Your task to perform on an android device: make emails show in primary in the gmail app Image 0: 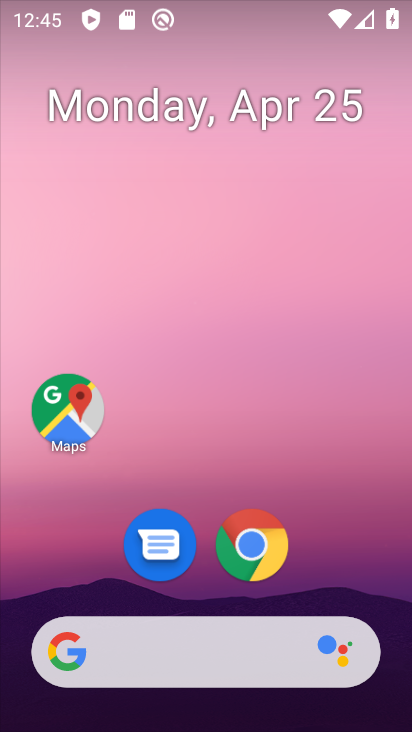
Step 0: drag from (292, 445) to (134, 110)
Your task to perform on an android device: make emails show in primary in the gmail app Image 1: 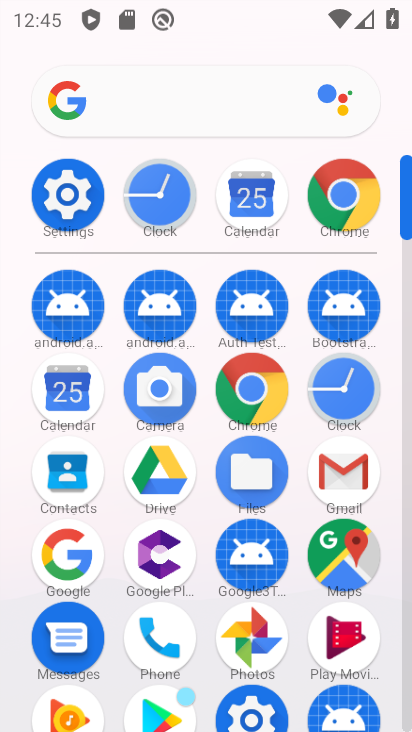
Step 1: click (356, 472)
Your task to perform on an android device: make emails show in primary in the gmail app Image 2: 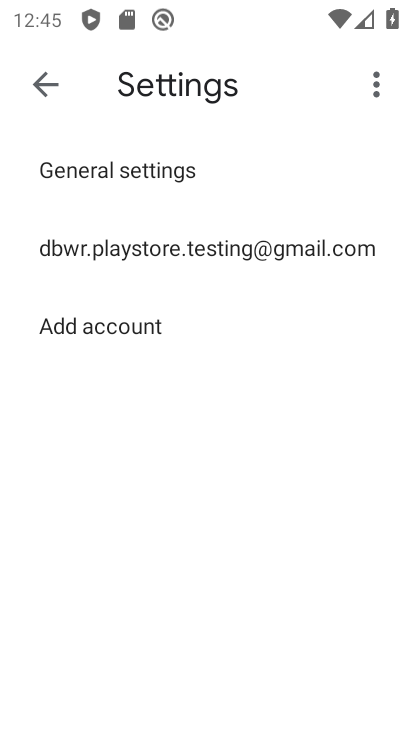
Step 2: press back button
Your task to perform on an android device: make emails show in primary in the gmail app Image 3: 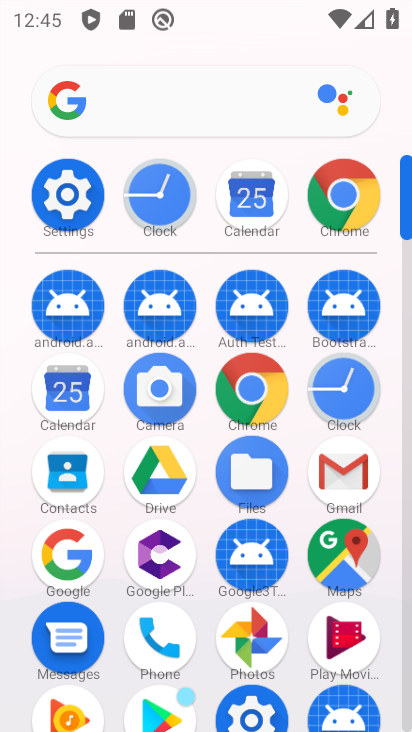
Step 3: click (344, 469)
Your task to perform on an android device: make emails show in primary in the gmail app Image 4: 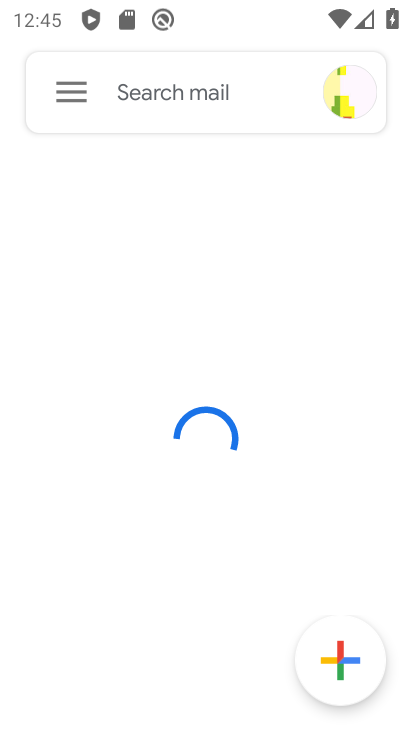
Step 4: click (78, 90)
Your task to perform on an android device: make emails show in primary in the gmail app Image 5: 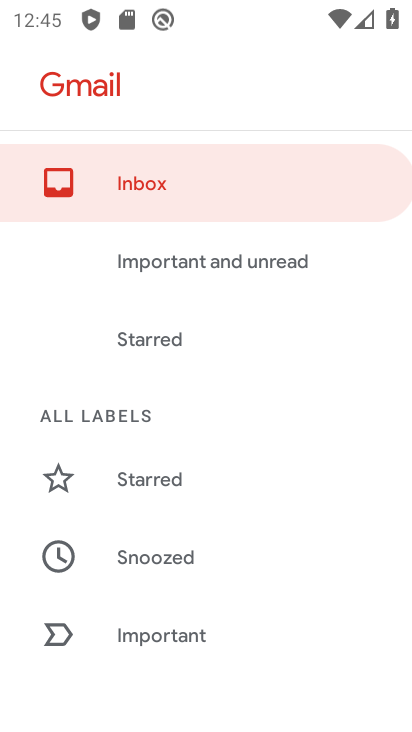
Step 5: drag from (184, 635) to (191, 141)
Your task to perform on an android device: make emails show in primary in the gmail app Image 6: 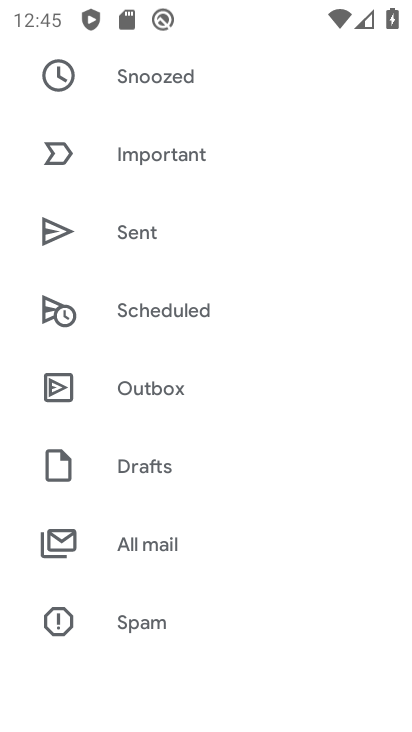
Step 6: drag from (186, 621) to (152, 5)
Your task to perform on an android device: make emails show in primary in the gmail app Image 7: 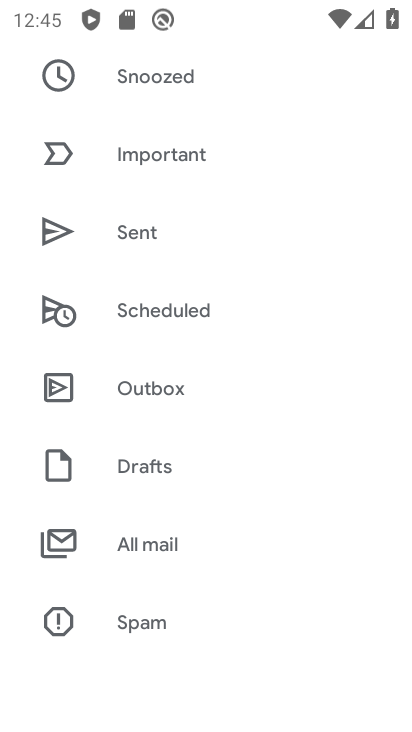
Step 7: drag from (165, 617) to (145, 191)
Your task to perform on an android device: make emails show in primary in the gmail app Image 8: 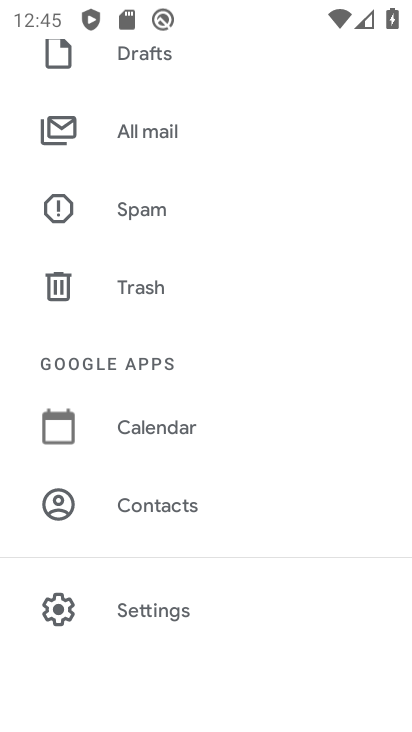
Step 8: click (98, 618)
Your task to perform on an android device: make emails show in primary in the gmail app Image 9: 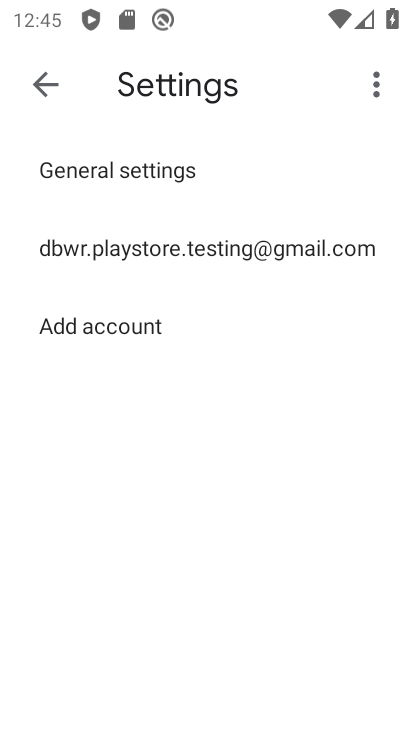
Step 9: click (161, 246)
Your task to perform on an android device: make emails show in primary in the gmail app Image 10: 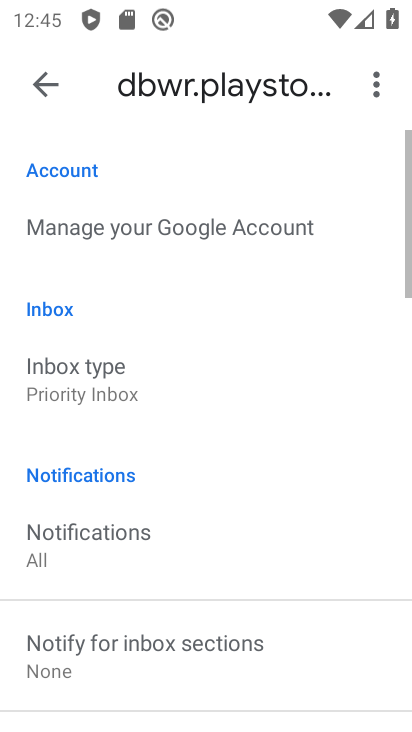
Step 10: click (112, 373)
Your task to perform on an android device: make emails show in primary in the gmail app Image 11: 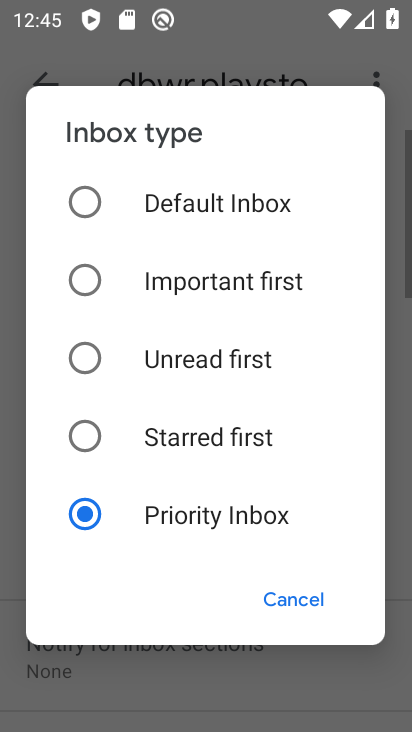
Step 11: click (142, 201)
Your task to perform on an android device: make emails show in primary in the gmail app Image 12: 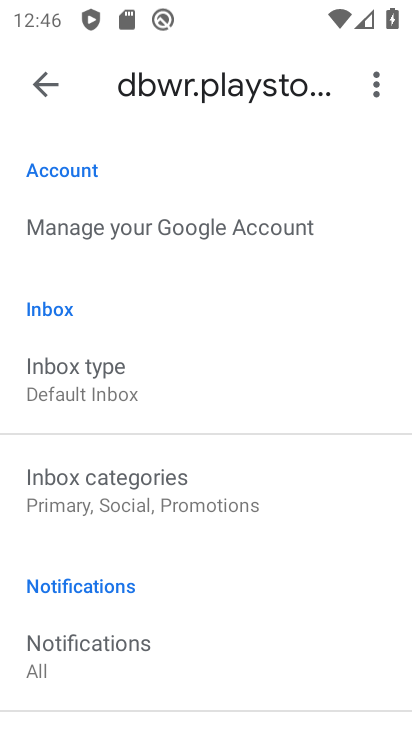
Step 12: press back button
Your task to perform on an android device: make emails show in primary in the gmail app Image 13: 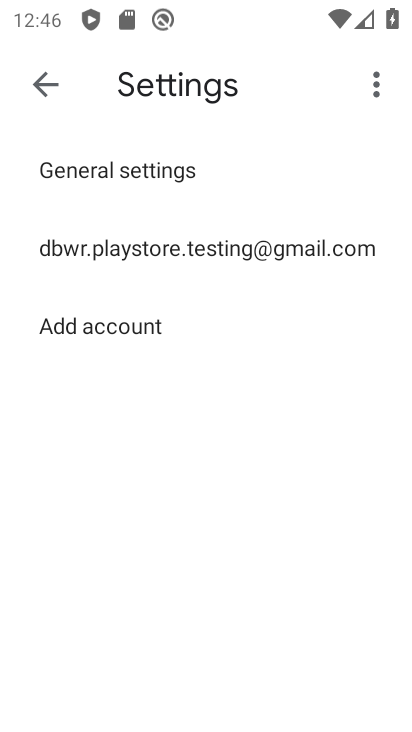
Step 13: press back button
Your task to perform on an android device: make emails show in primary in the gmail app Image 14: 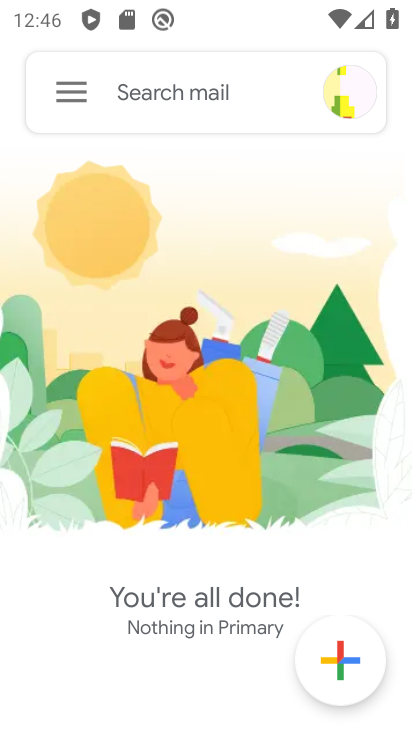
Step 14: click (75, 87)
Your task to perform on an android device: make emails show in primary in the gmail app Image 15: 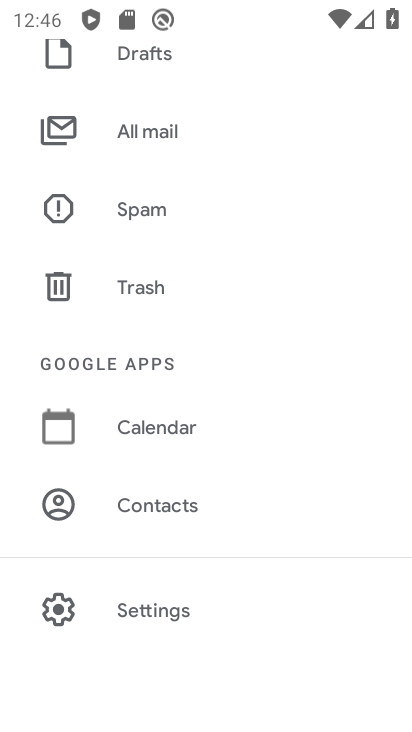
Step 15: task complete